Your task to perform on an android device: open a bookmark in the chrome app Image 0: 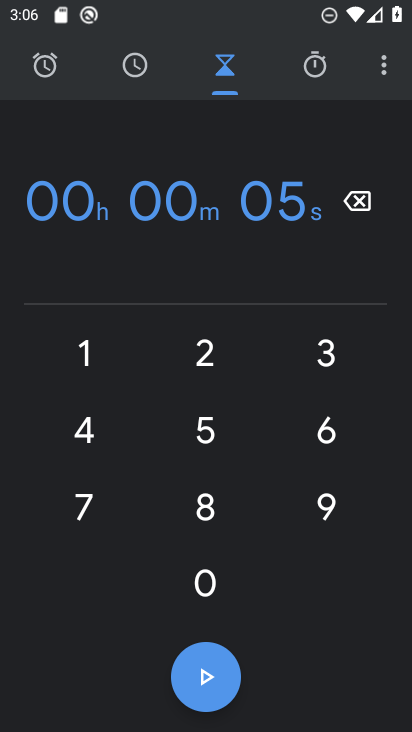
Step 0: press home button
Your task to perform on an android device: open a bookmark in the chrome app Image 1: 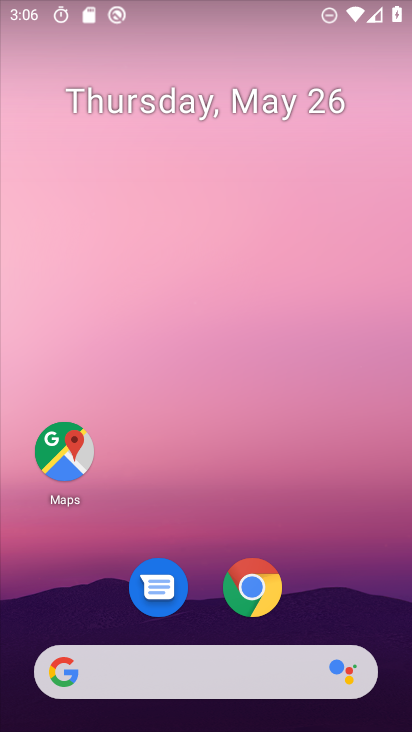
Step 1: click (260, 581)
Your task to perform on an android device: open a bookmark in the chrome app Image 2: 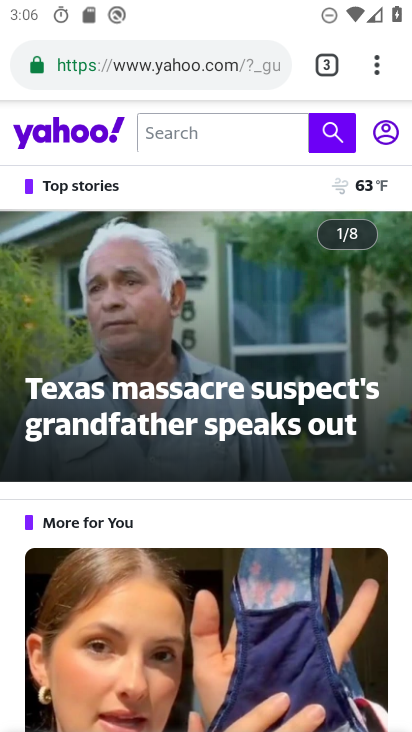
Step 2: task complete